Your task to perform on an android device: Go to Android settings Image 0: 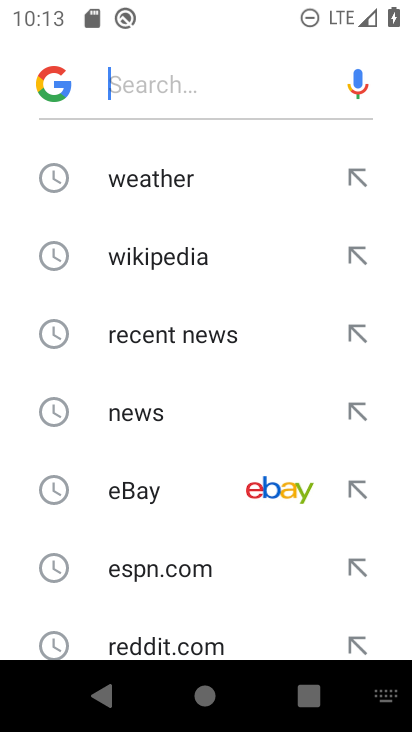
Step 0: press home button
Your task to perform on an android device: Go to Android settings Image 1: 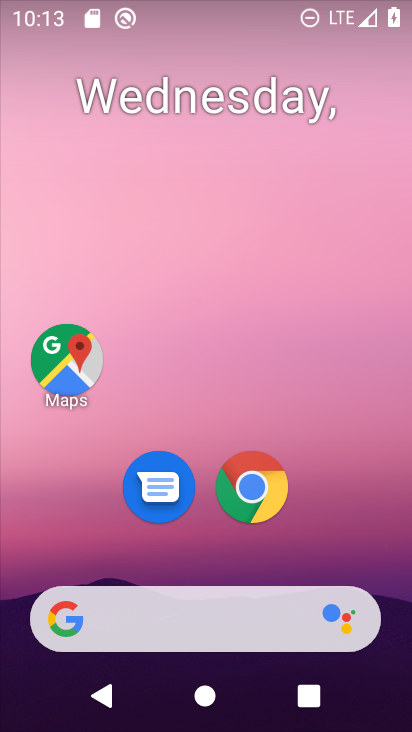
Step 1: drag from (315, 493) to (227, 211)
Your task to perform on an android device: Go to Android settings Image 2: 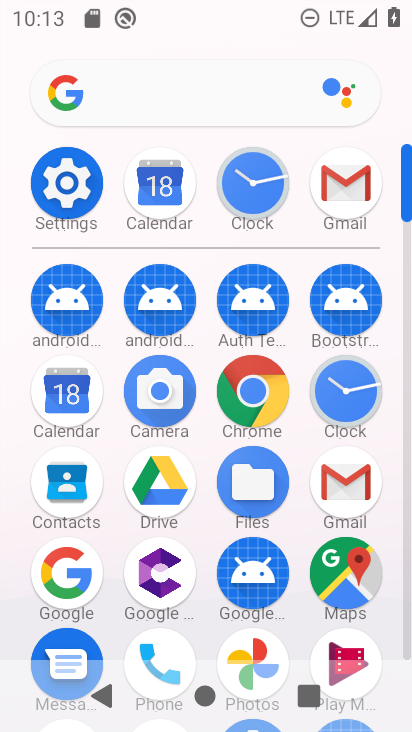
Step 2: click (67, 166)
Your task to perform on an android device: Go to Android settings Image 3: 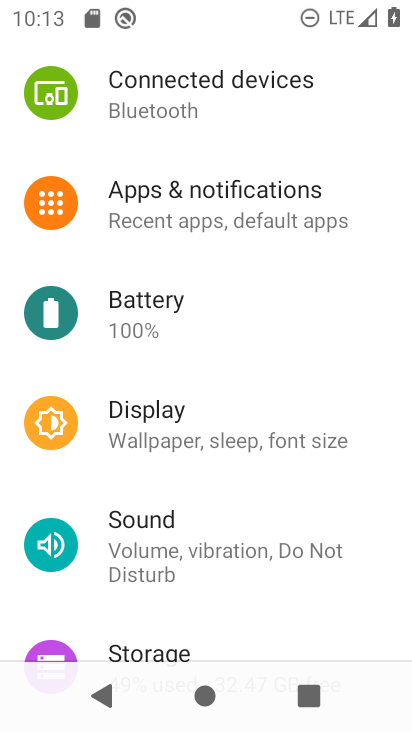
Step 3: task complete